Your task to perform on an android device: toggle show notifications on the lock screen Image 0: 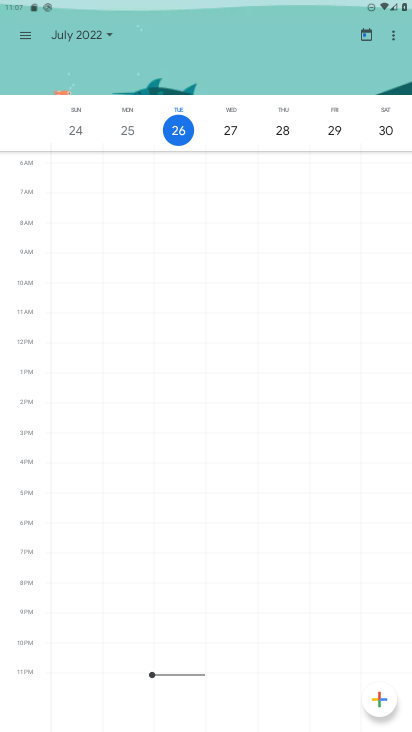
Step 0: press home button
Your task to perform on an android device: toggle show notifications on the lock screen Image 1: 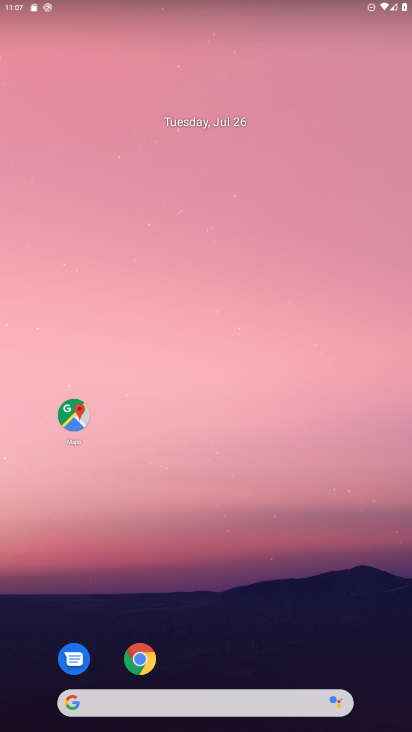
Step 1: drag from (392, 709) to (359, 63)
Your task to perform on an android device: toggle show notifications on the lock screen Image 2: 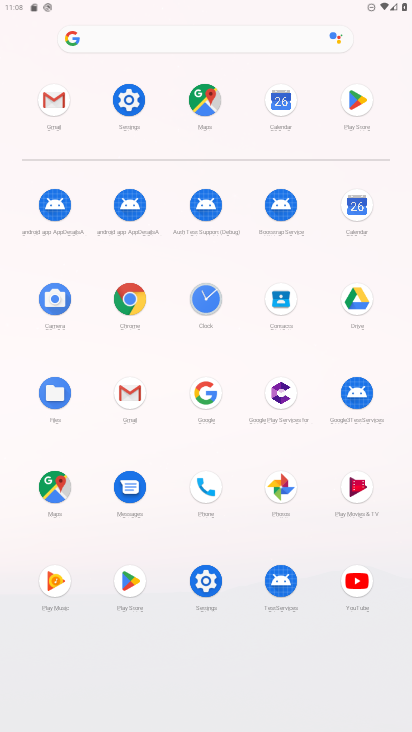
Step 2: click (134, 99)
Your task to perform on an android device: toggle show notifications on the lock screen Image 3: 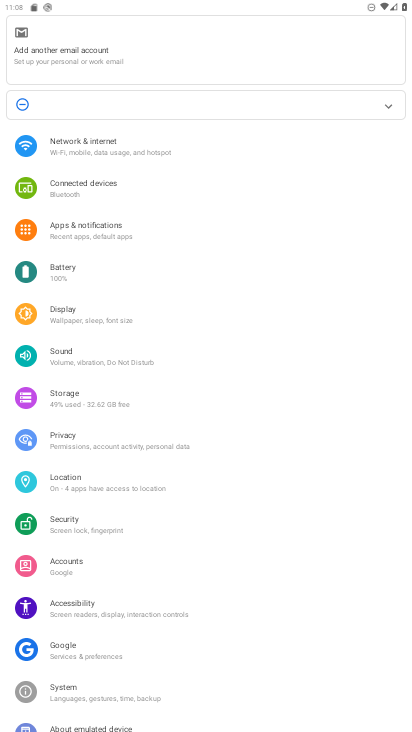
Step 3: click (91, 227)
Your task to perform on an android device: toggle show notifications on the lock screen Image 4: 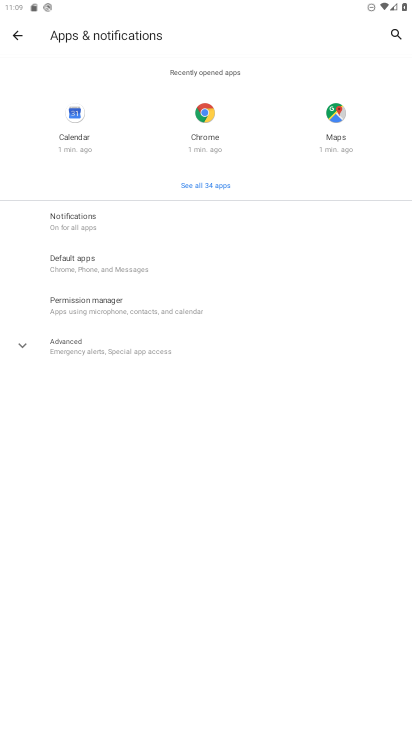
Step 4: click (73, 220)
Your task to perform on an android device: toggle show notifications on the lock screen Image 5: 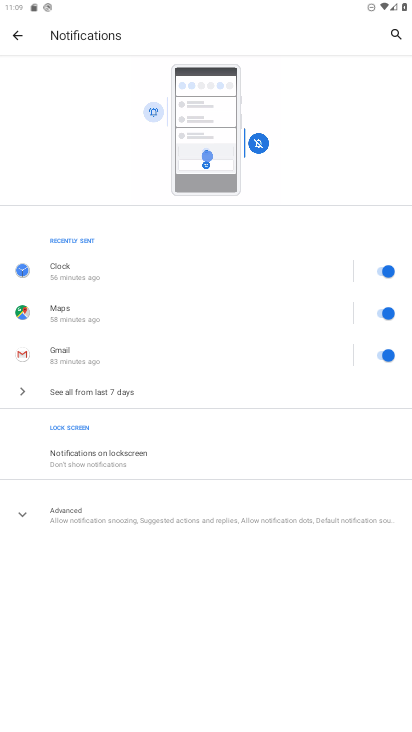
Step 5: click (91, 447)
Your task to perform on an android device: toggle show notifications on the lock screen Image 6: 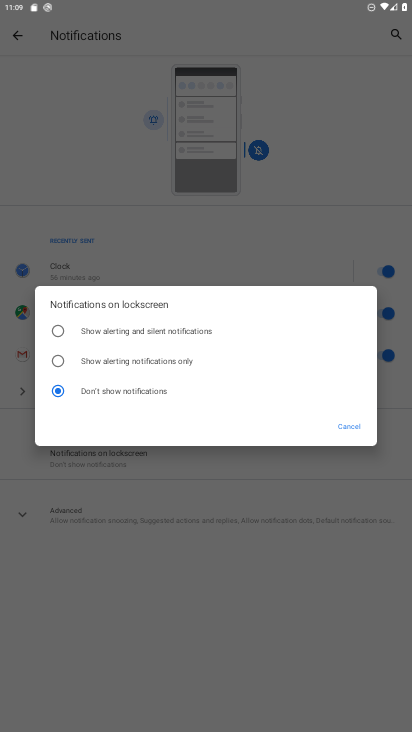
Step 6: click (79, 329)
Your task to perform on an android device: toggle show notifications on the lock screen Image 7: 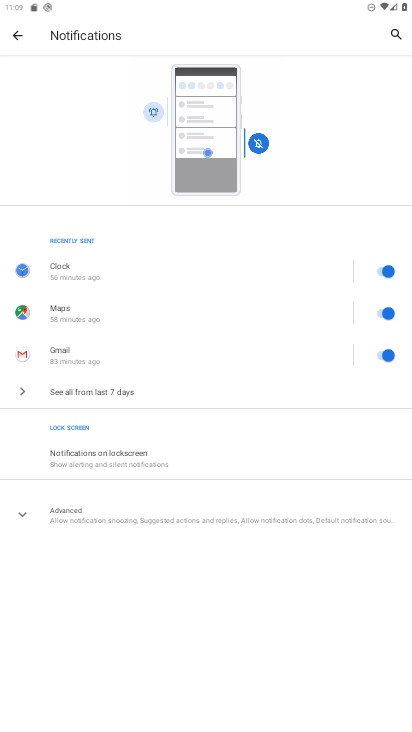
Step 7: task complete